Your task to perform on an android device: turn off wifi Image 0: 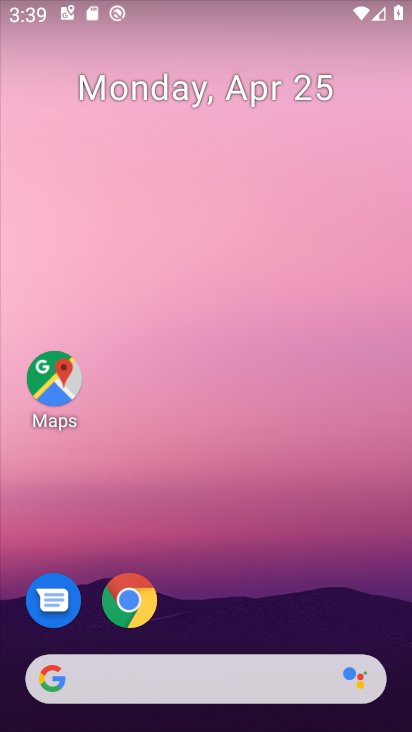
Step 0: drag from (303, 581) to (294, 47)
Your task to perform on an android device: turn off wifi Image 1: 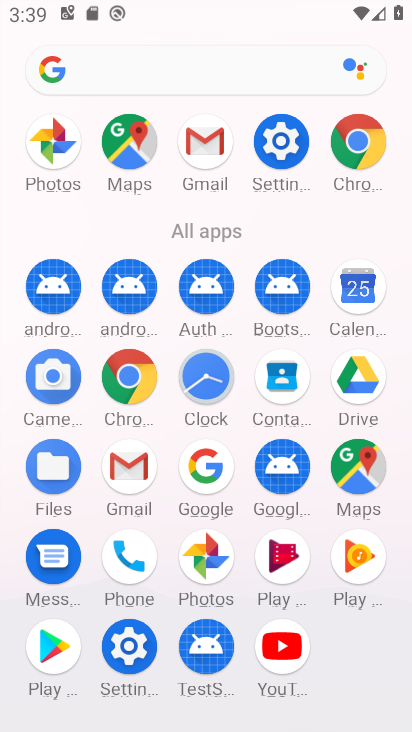
Step 1: click (280, 142)
Your task to perform on an android device: turn off wifi Image 2: 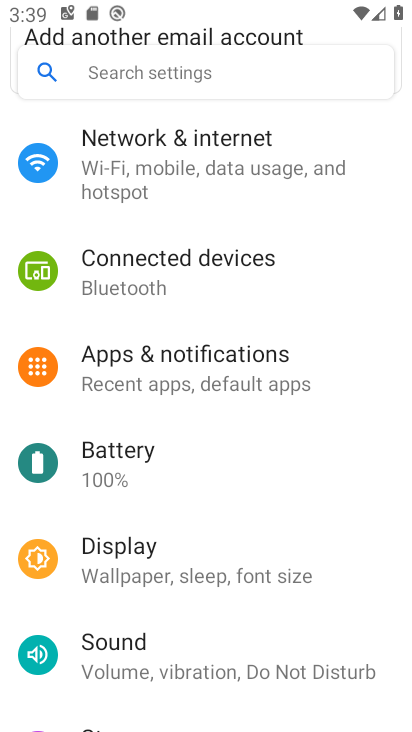
Step 2: drag from (313, 356) to (294, 556)
Your task to perform on an android device: turn off wifi Image 3: 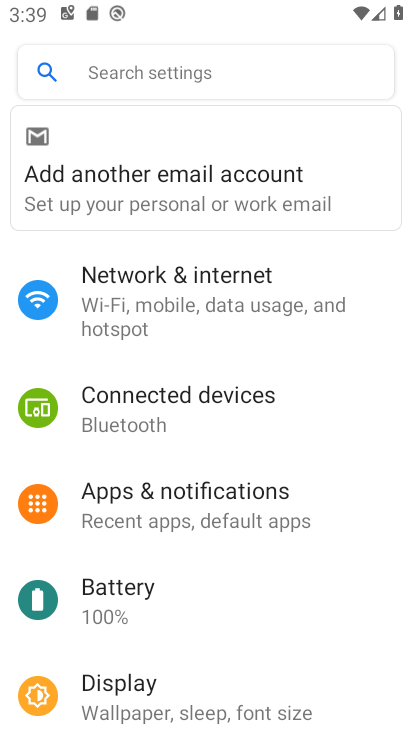
Step 3: click (264, 278)
Your task to perform on an android device: turn off wifi Image 4: 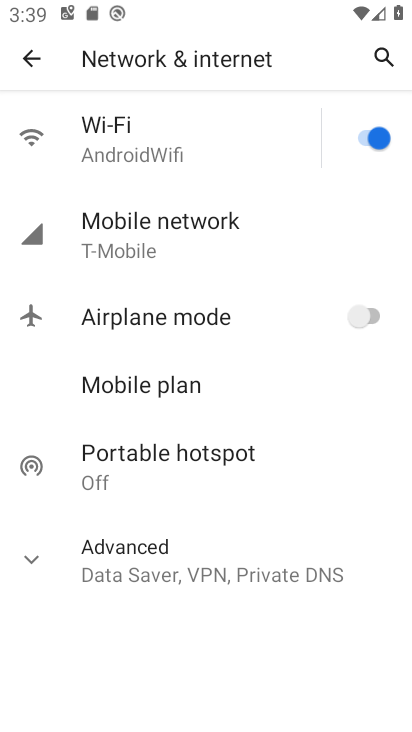
Step 4: click (375, 129)
Your task to perform on an android device: turn off wifi Image 5: 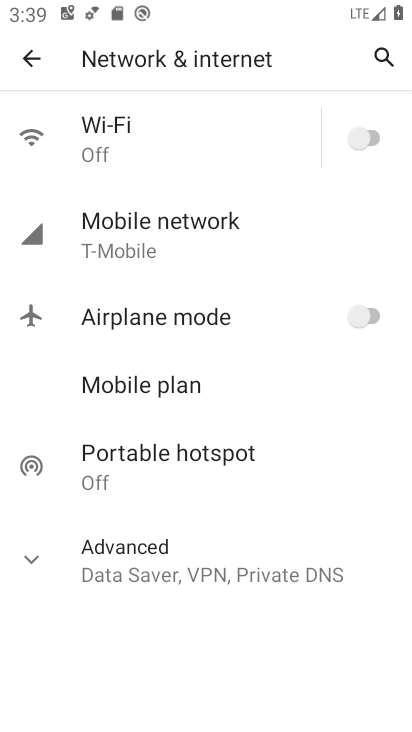
Step 5: task complete